Your task to perform on an android device: toggle airplane mode Image 0: 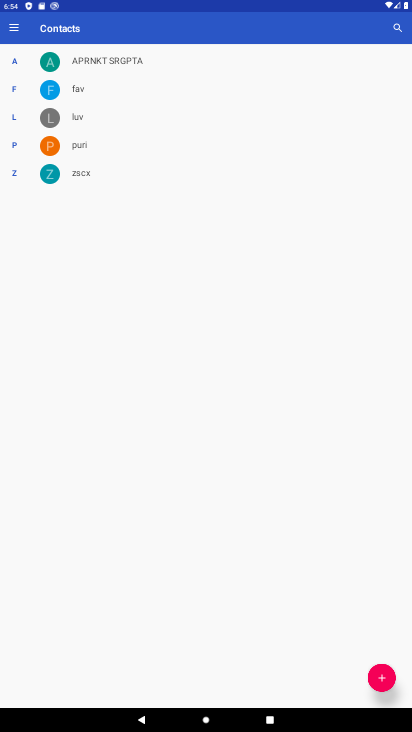
Step 0: press home button
Your task to perform on an android device: toggle airplane mode Image 1: 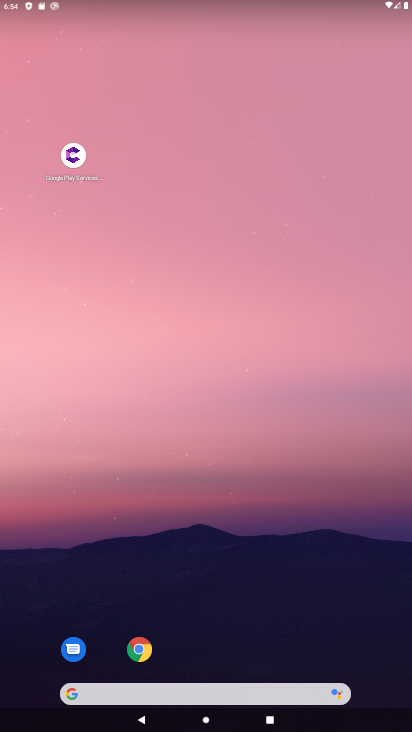
Step 1: drag from (180, 583) to (197, 29)
Your task to perform on an android device: toggle airplane mode Image 2: 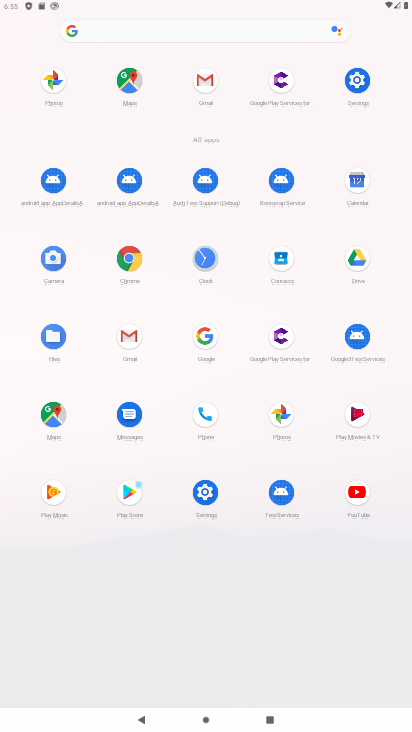
Step 2: click (358, 75)
Your task to perform on an android device: toggle airplane mode Image 3: 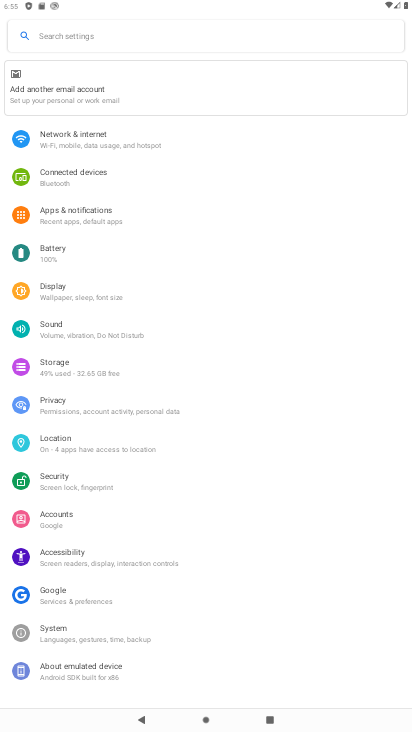
Step 3: click (107, 143)
Your task to perform on an android device: toggle airplane mode Image 4: 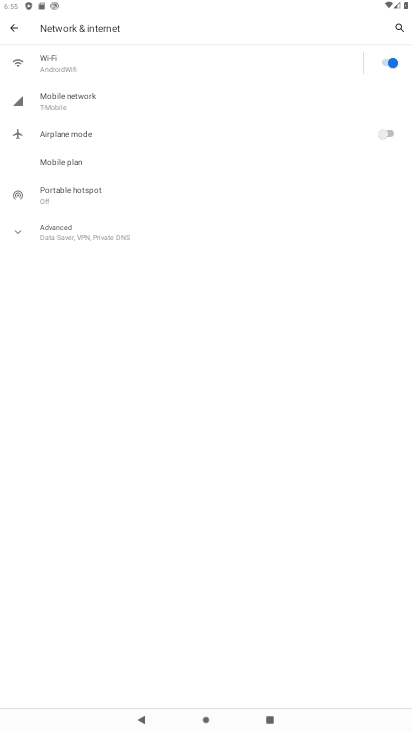
Step 4: click (395, 129)
Your task to perform on an android device: toggle airplane mode Image 5: 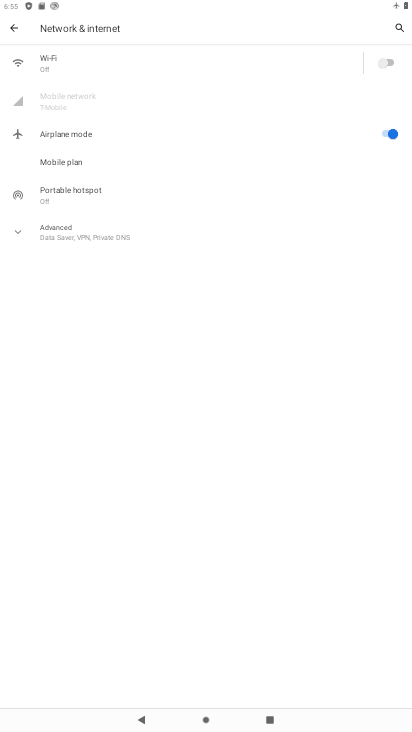
Step 5: task complete